Your task to perform on an android device: find snoozed emails in the gmail app Image 0: 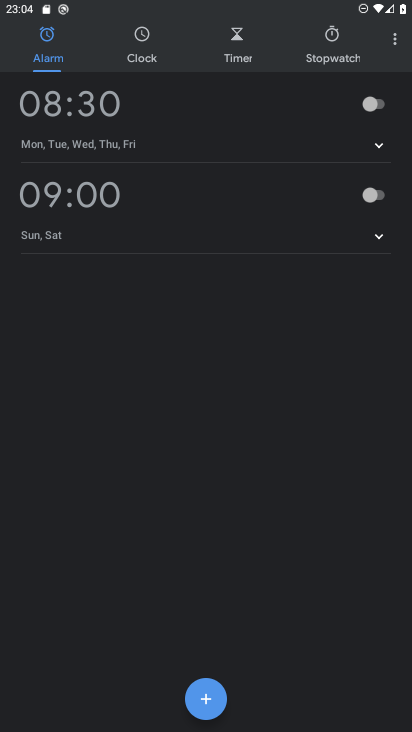
Step 0: press home button
Your task to perform on an android device: find snoozed emails in the gmail app Image 1: 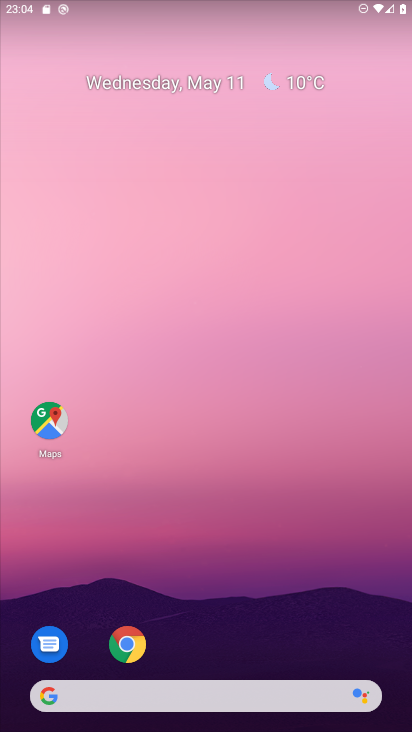
Step 1: click (312, 648)
Your task to perform on an android device: find snoozed emails in the gmail app Image 2: 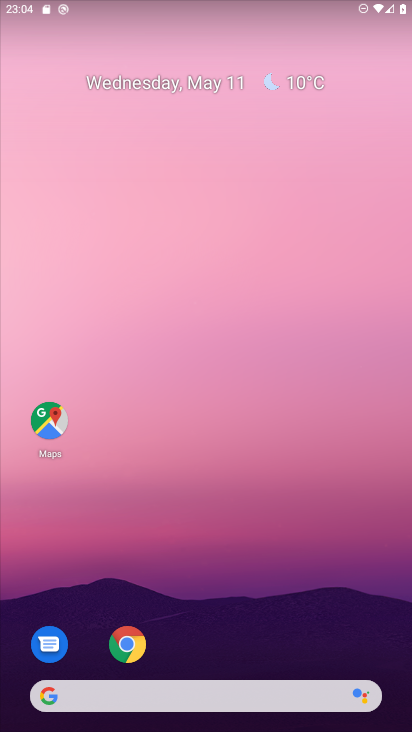
Step 2: drag from (312, 648) to (301, 8)
Your task to perform on an android device: find snoozed emails in the gmail app Image 3: 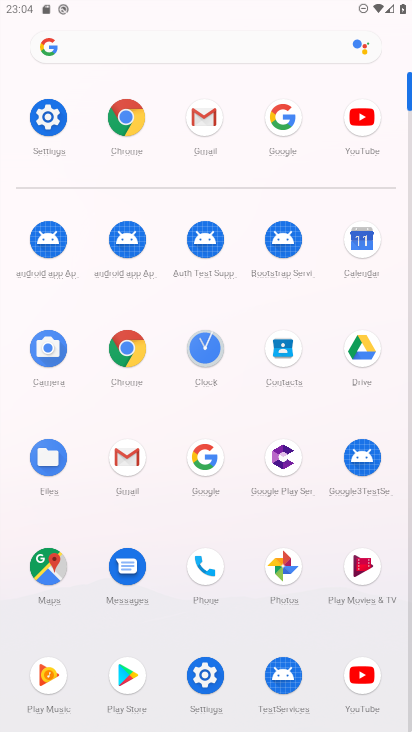
Step 3: click (202, 117)
Your task to perform on an android device: find snoozed emails in the gmail app Image 4: 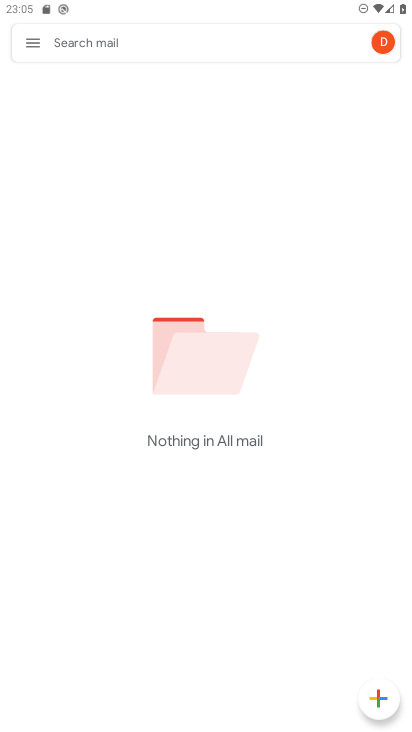
Step 4: click (31, 46)
Your task to perform on an android device: find snoozed emails in the gmail app Image 5: 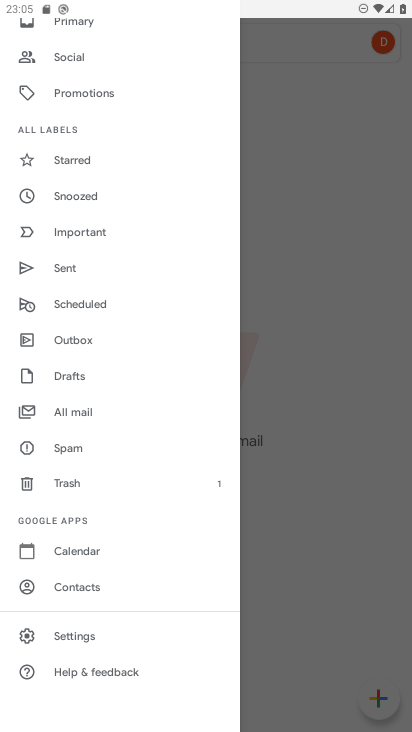
Step 5: click (86, 192)
Your task to perform on an android device: find snoozed emails in the gmail app Image 6: 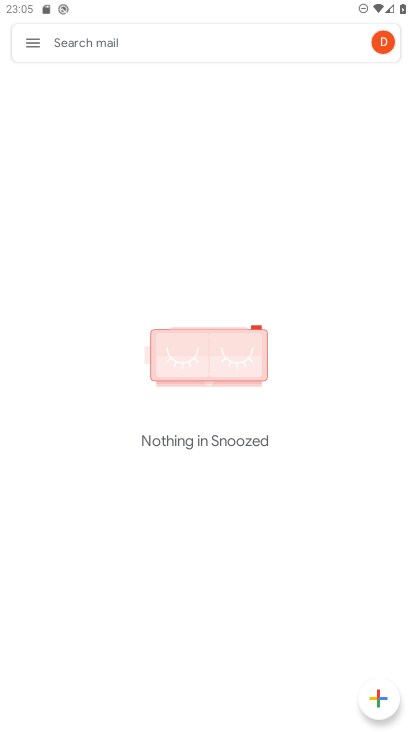
Step 6: task complete